Your task to perform on an android device: turn on translation in the chrome app Image 0: 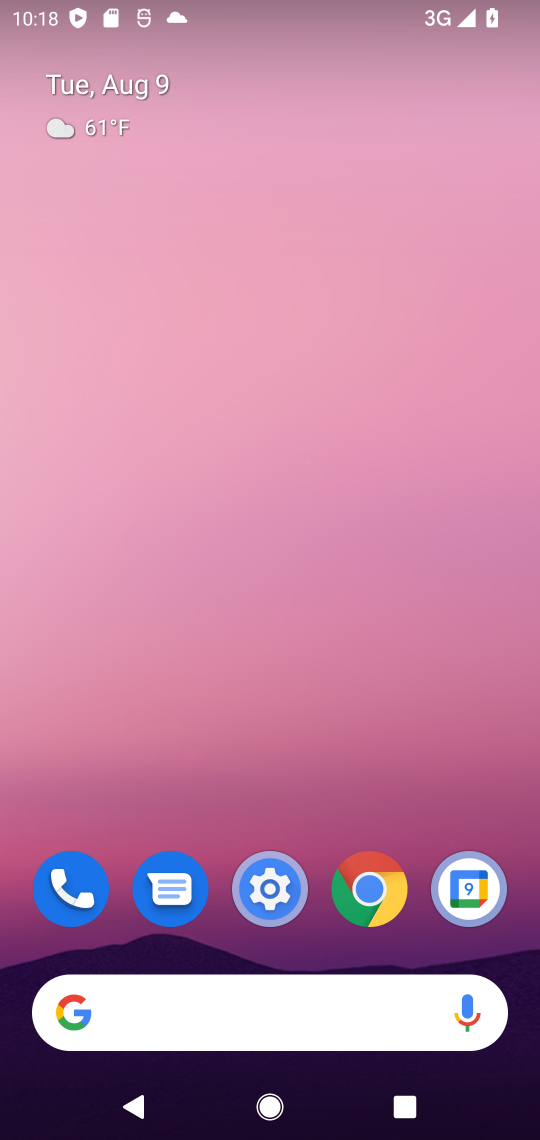
Step 0: drag from (245, 719) to (315, 179)
Your task to perform on an android device: turn on translation in the chrome app Image 1: 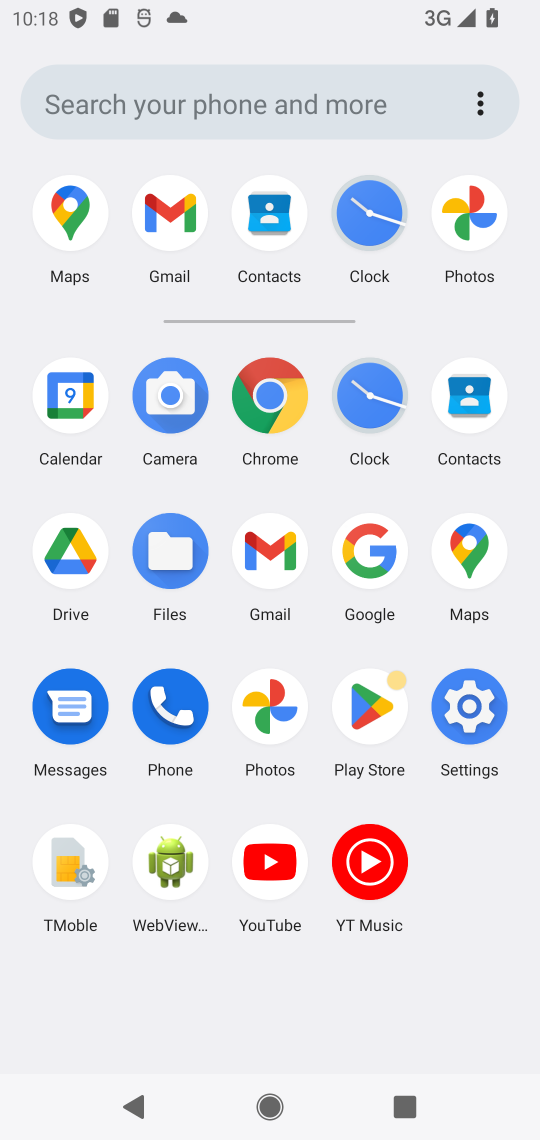
Step 1: click (255, 410)
Your task to perform on an android device: turn on translation in the chrome app Image 2: 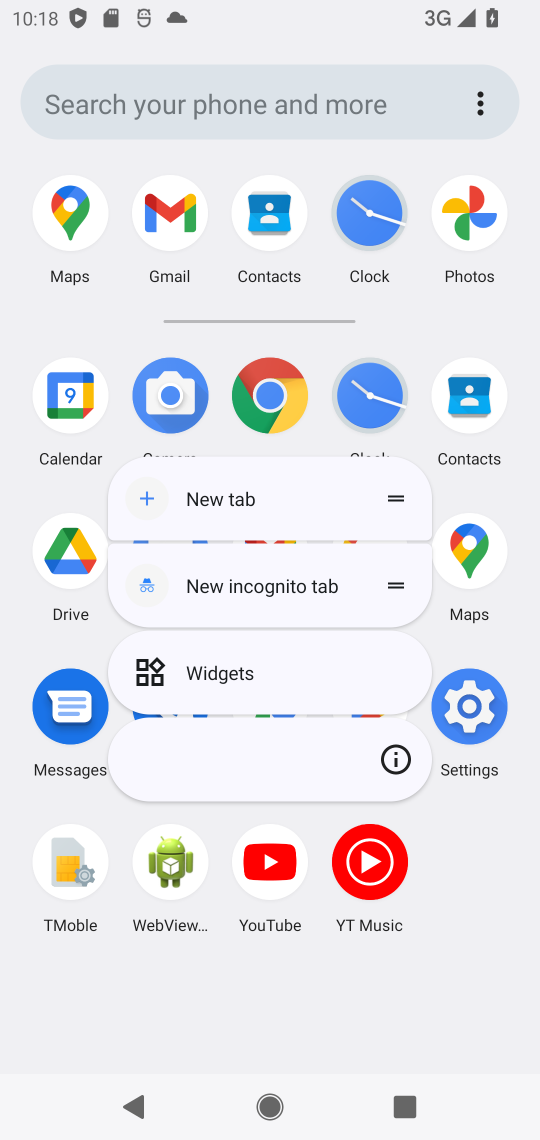
Step 2: click (257, 403)
Your task to perform on an android device: turn on translation in the chrome app Image 3: 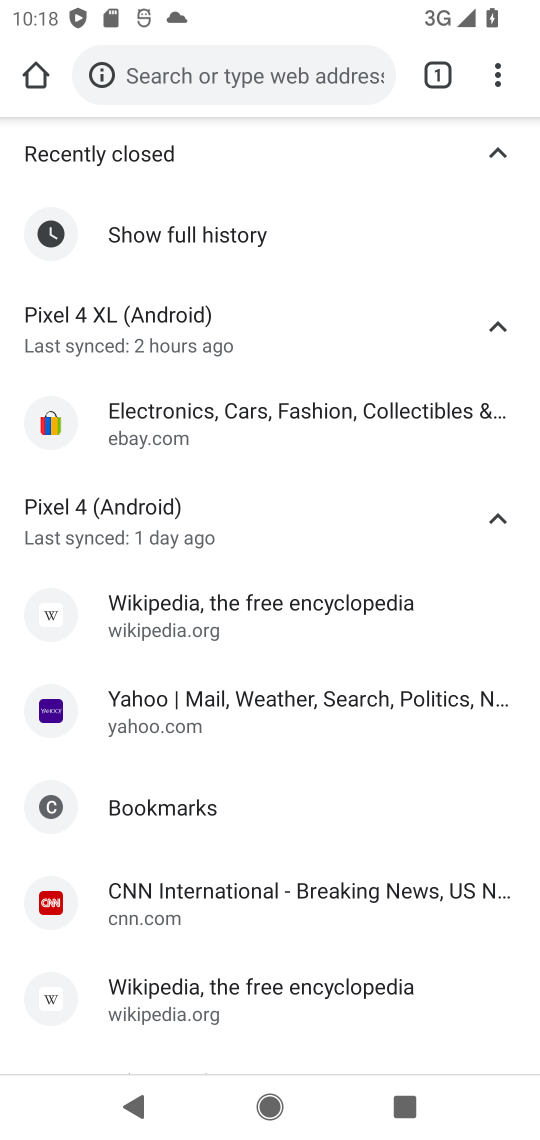
Step 3: drag from (491, 81) to (253, 785)
Your task to perform on an android device: turn on translation in the chrome app Image 4: 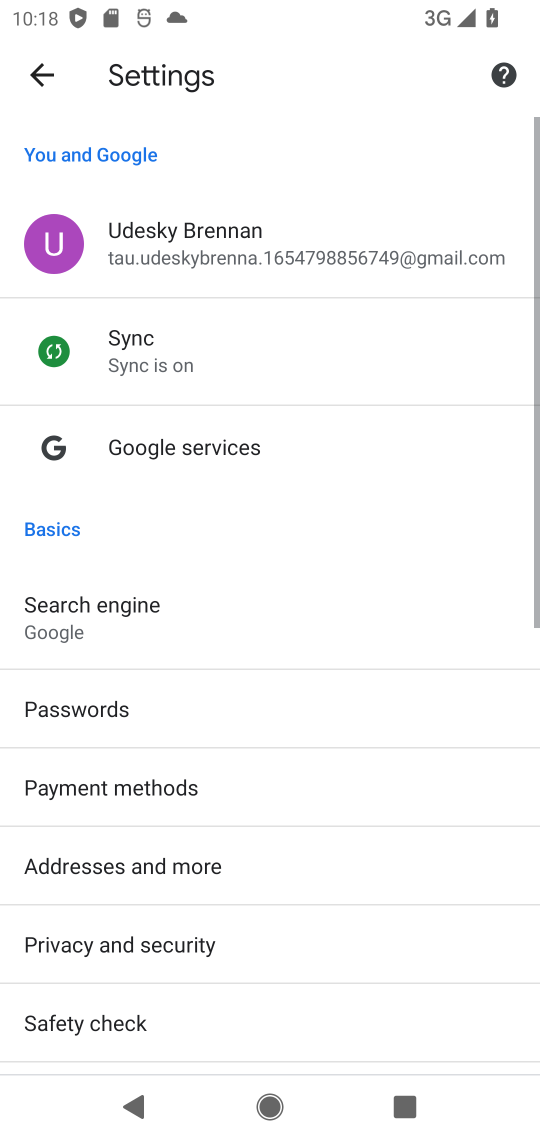
Step 4: drag from (185, 937) to (273, 232)
Your task to perform on an android device: turn on translation in the chrome app Image 5: 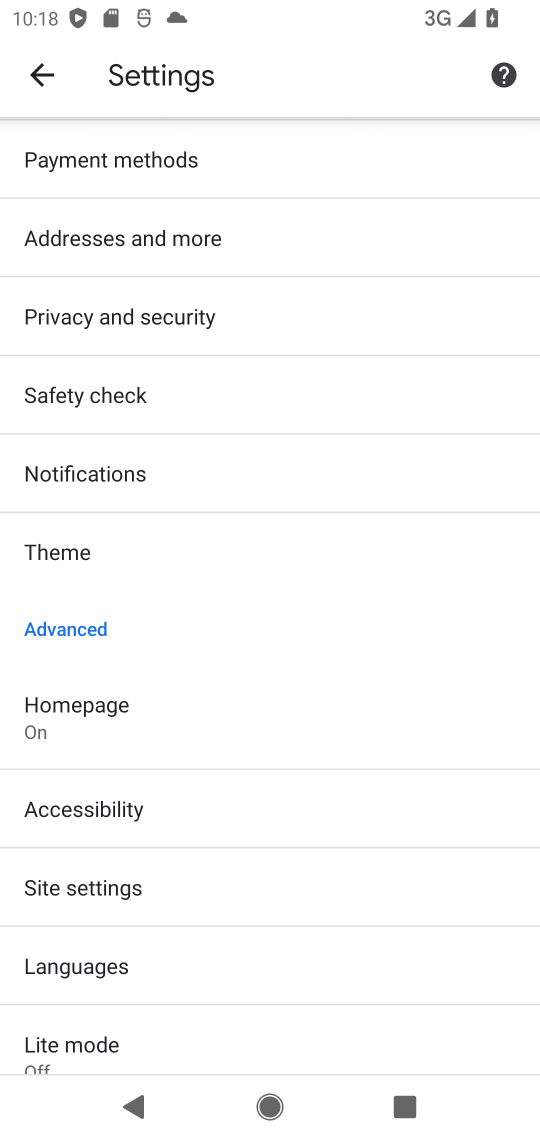
Step 5: click (75, 970)
Your task to perform on an android device: turn on translation in the chrome app Image 6: 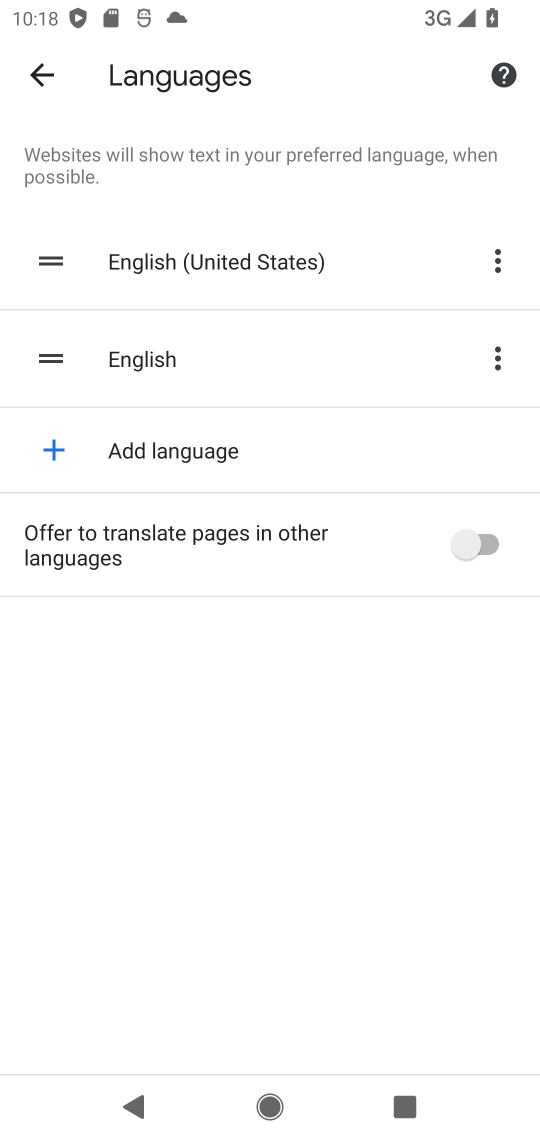
Step 6: click (480, 555)
Your task to perform on an android device: turn on translation in the chrome app Image 7: 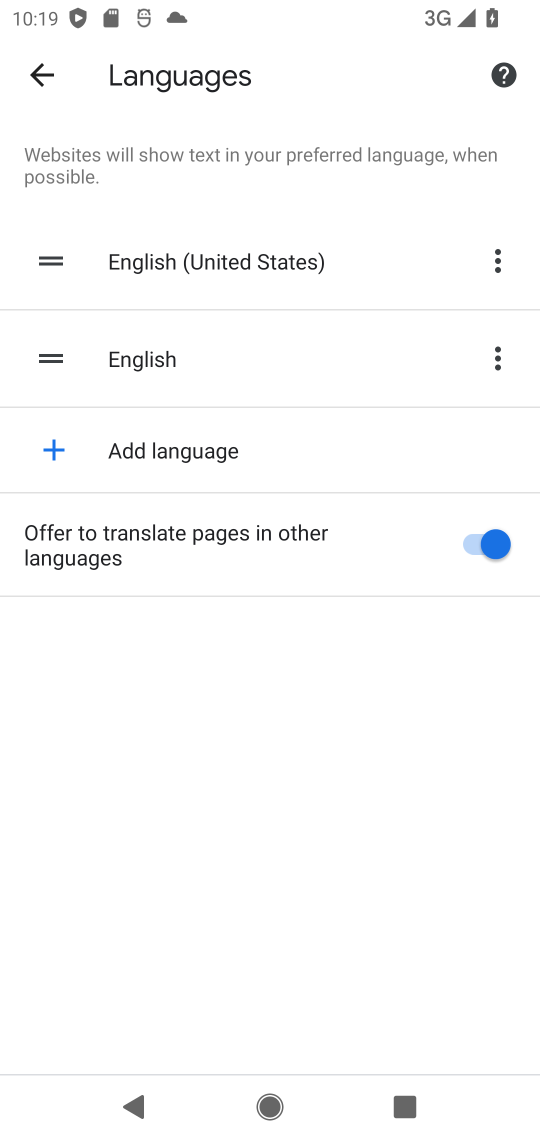
Step 7: task complete